Your task to perform on an android device: set default search engine in the chrome app Image 0: 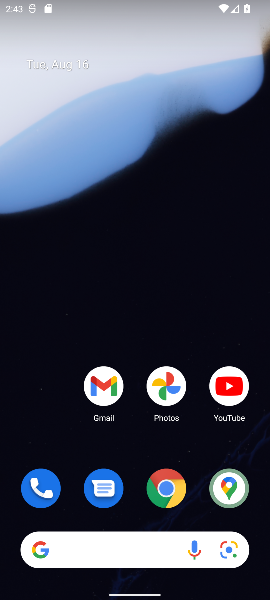
Step 0: click (177, 494)
Your task to perform on an android device: set default search engine in the chrome app Image 1: 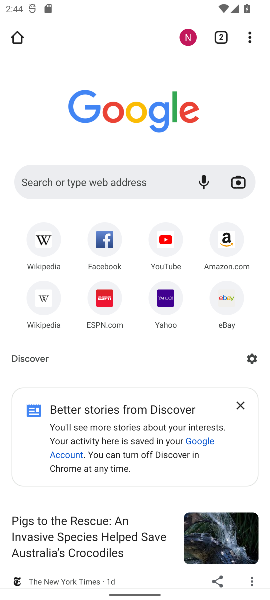
Step 1: task complete